Your task to perform on an android device: Go to privacy settings Image 0: 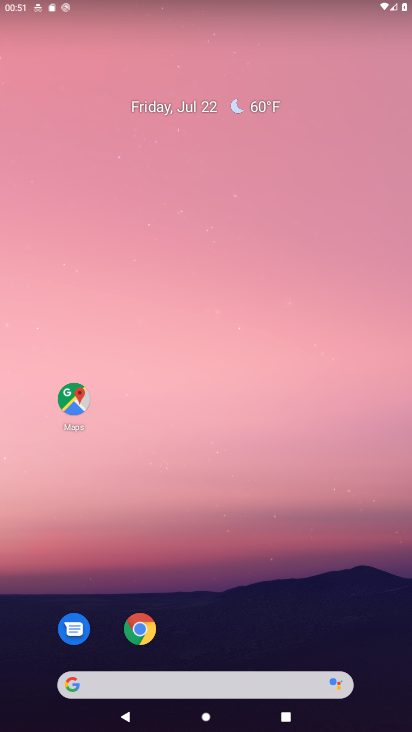
Step 0: drag from (209, 648) to (209, 124)
Your task to perform on an android device: Go to privacy settings Image 1: 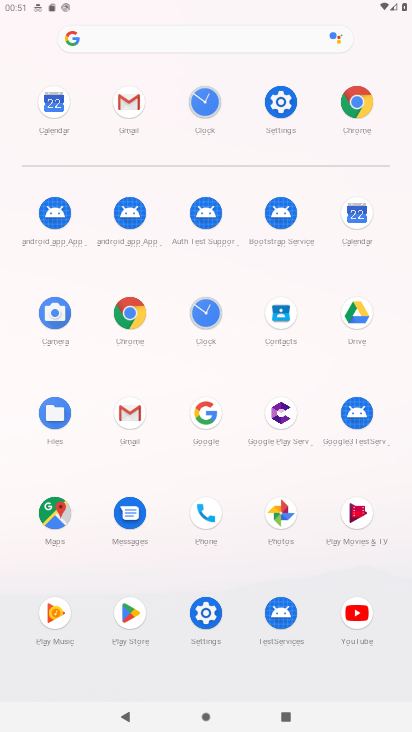
Step 1: click (276, 93)
Your task to perform on an android device: Go to privacy settings Image 2: 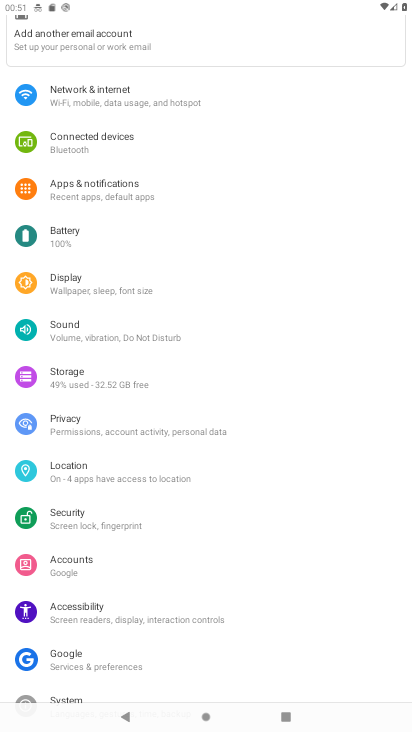
Step 2: click (95, 416)
Your task to perform on an android device: Go to privacy settings Image 3: 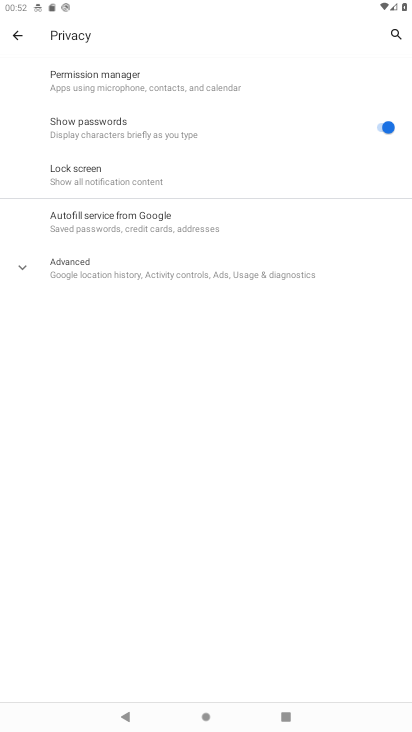
Step 3: task complete